Your task to perform on an android device: Set an alarm for 11am Image 0: 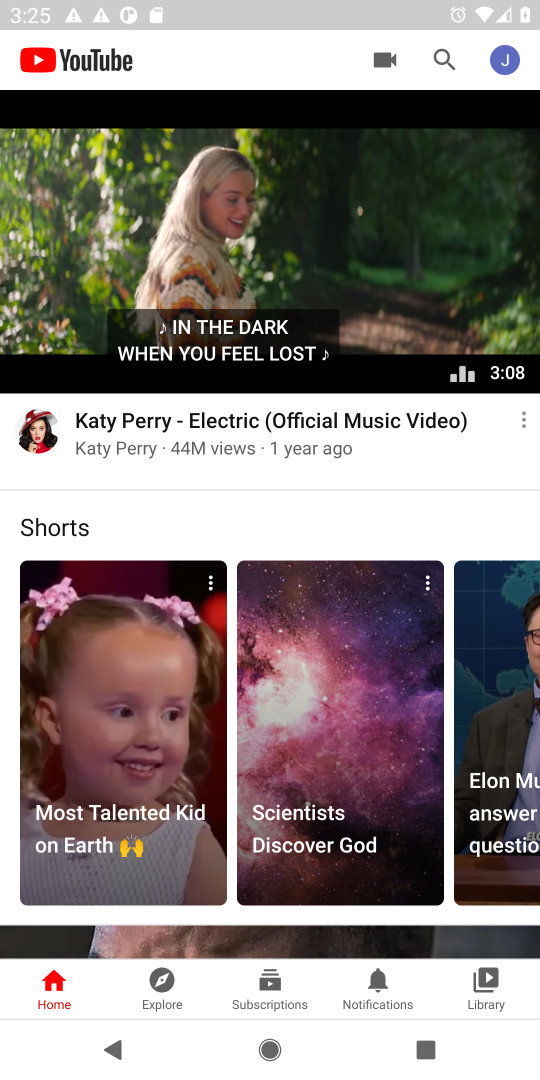
Step 0: press home button
Your task to perform on an android device: Set an alarm for 11am Image 1: 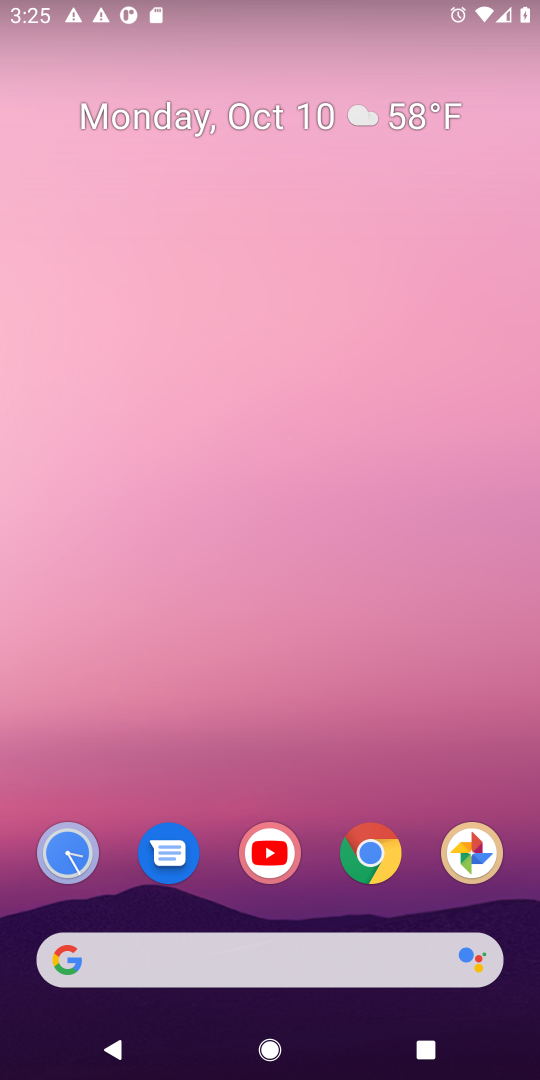
Step 1: drag from (382, 775) to (387, 63)
Your task to perform on an android device: Set an alarm for 11am Image 2: 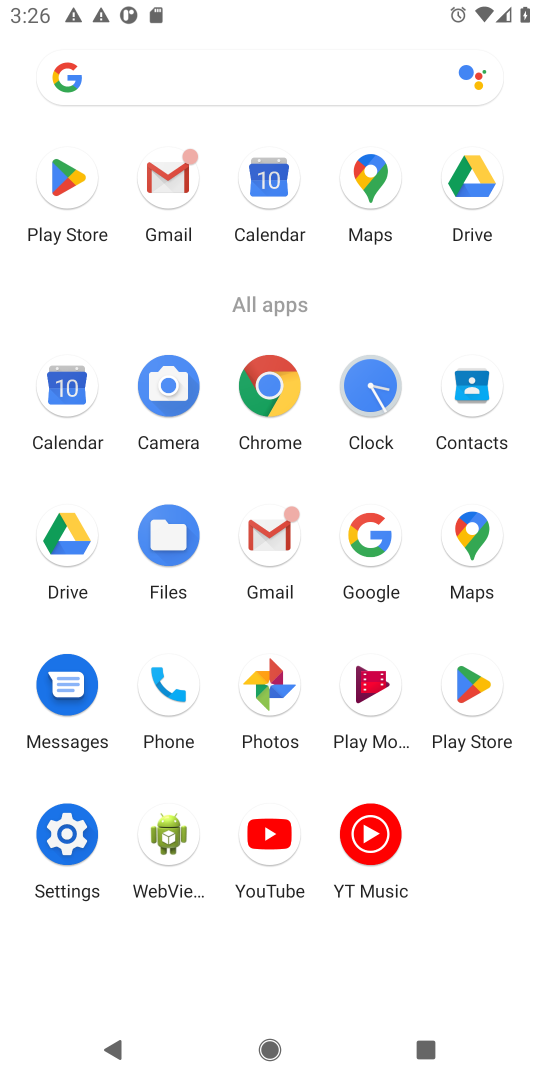
Step 2: click (360, 393)
Your task to perform on an android device: Set an alarm for 11am Image 3: 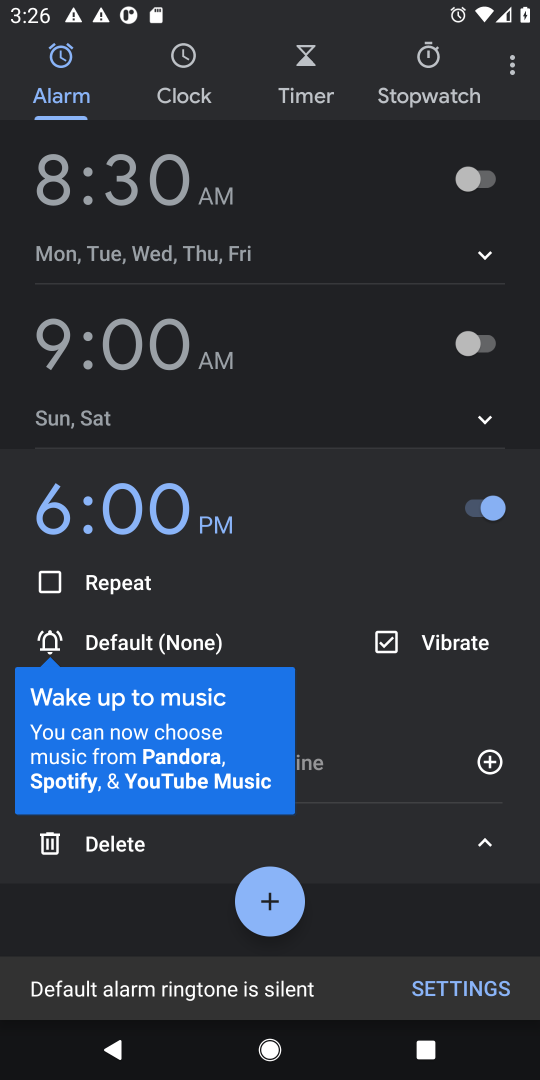
Step 3: click (267, 900)
Your task to perform on an android device: Set an alarm for 11am Image 4: 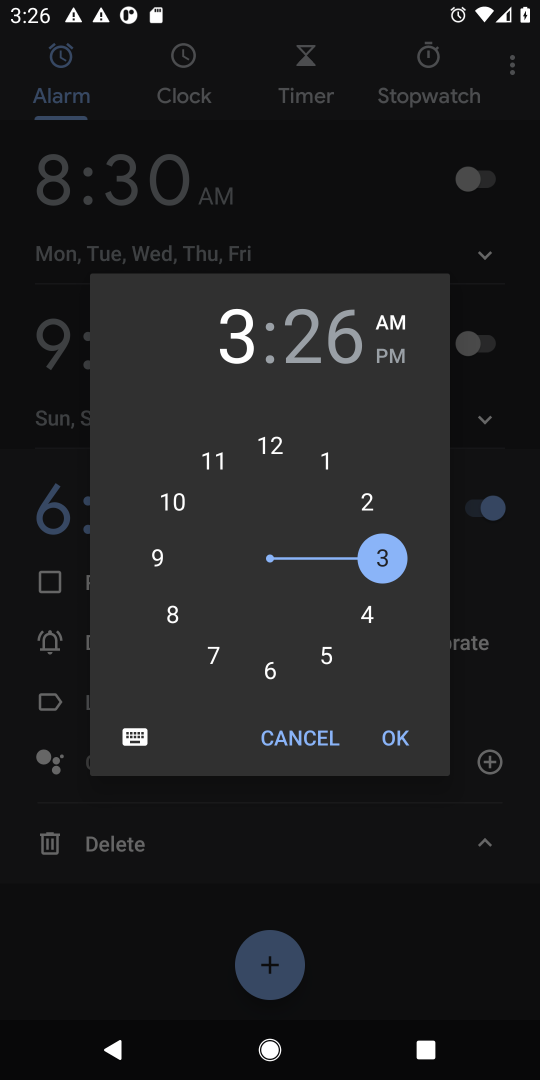
Step 4: click (209, 445)
Your task to perform on an android device: Set an alarm for 11am Image 5: 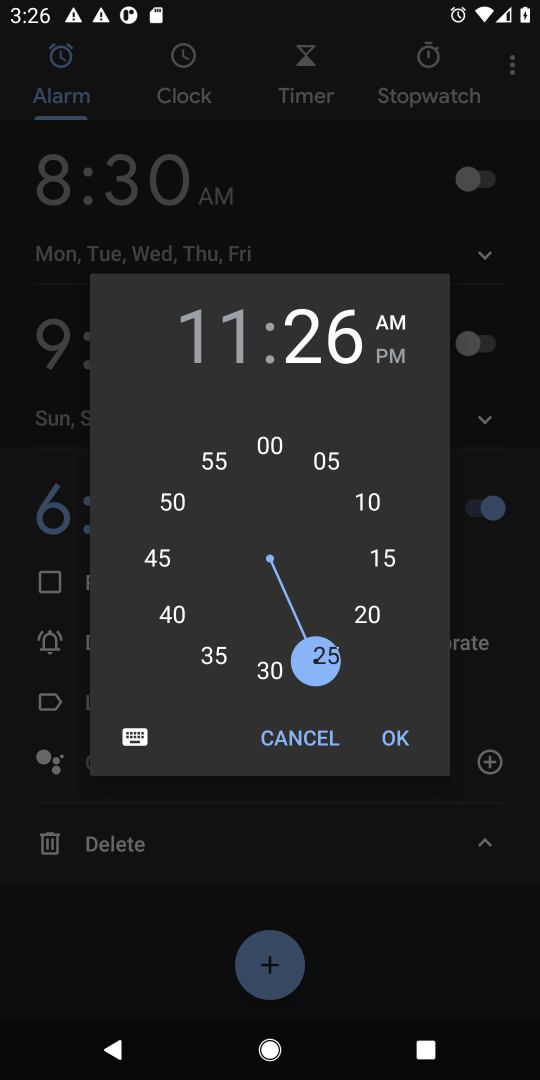
Step 5: click (266, 447)
Your task to perform on an android device: Set an alarm for 11am Image 6: 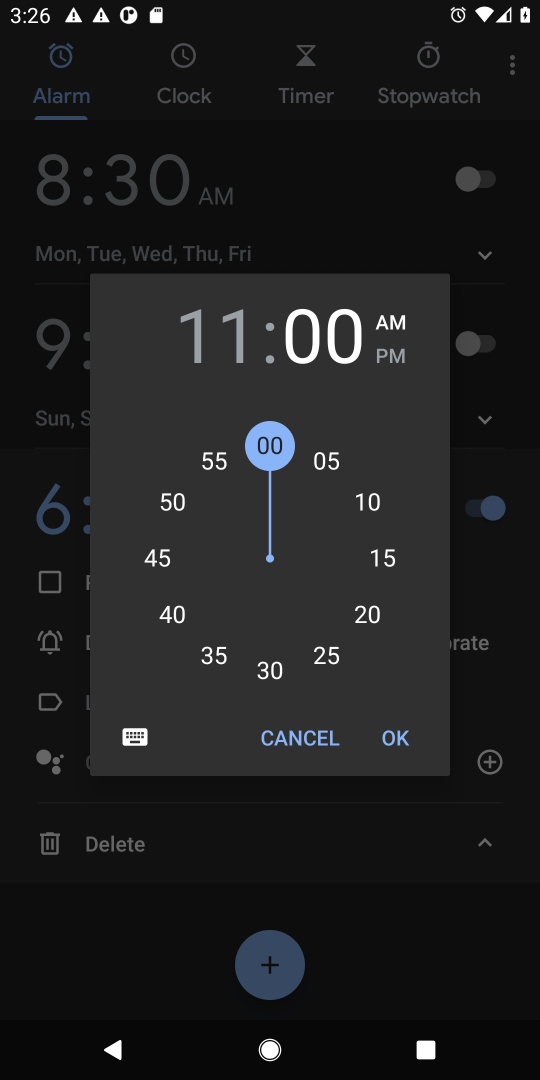
Step 6: click (385, 735)
Your task to perform on an android device: Set an alarm for 11am Image 7: 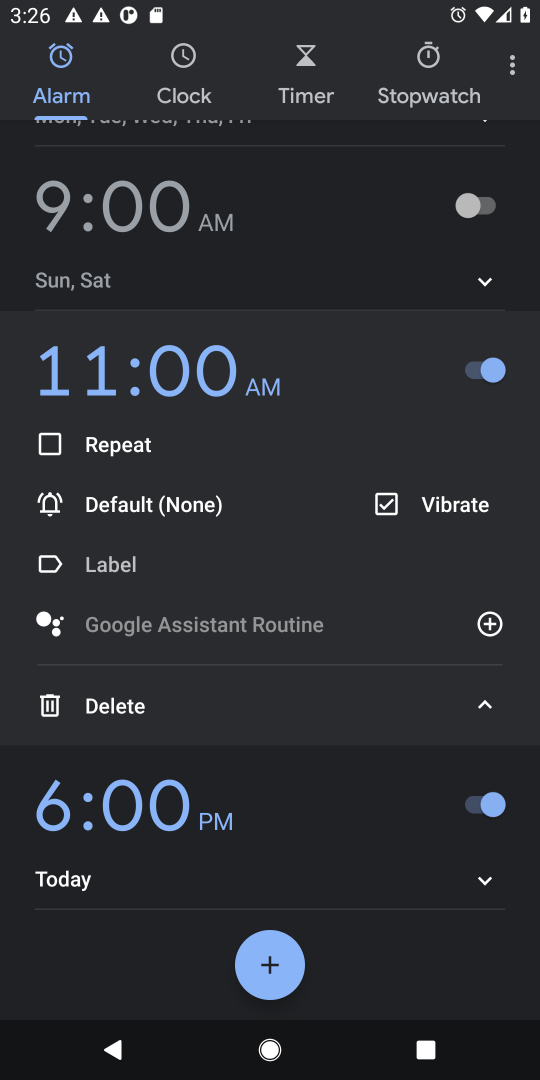
Step 7: task complete